Your task to perform on an android device: Open notification settings Image 0: 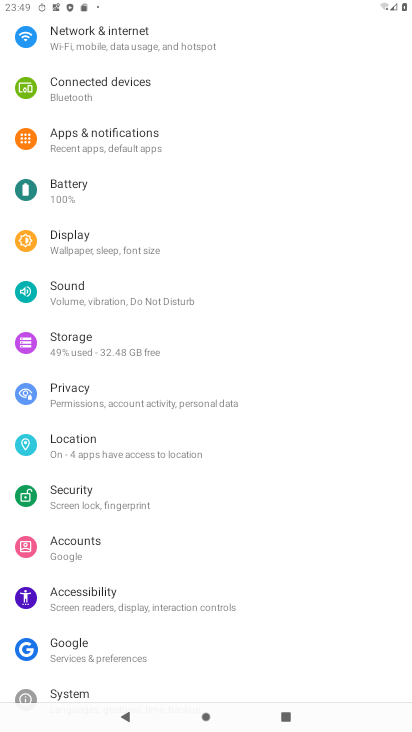
Step 0: click (153, 140)
Your task to perform on an android device: Open notification settings Image 1: 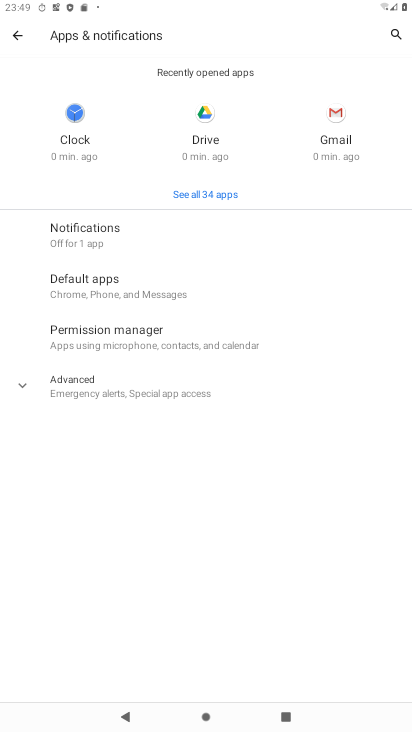
Step 1: click (106, 227)
Your task to perform on an android device: Open notification settings Image 2: 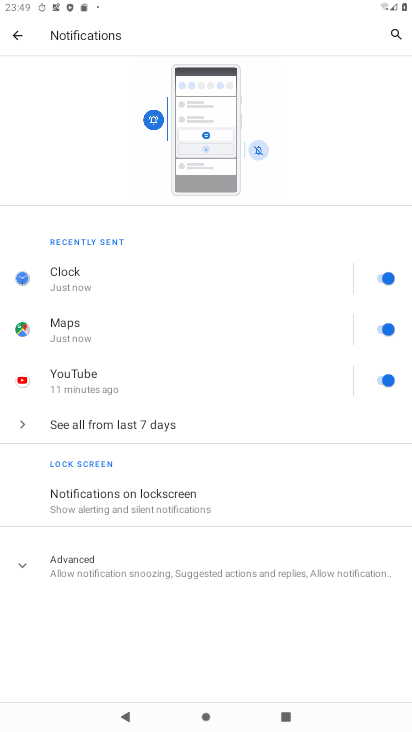
Step 2: task complete